Your task to perform on an android device: Open Youtube and go to the subscriptions tab Image 0: 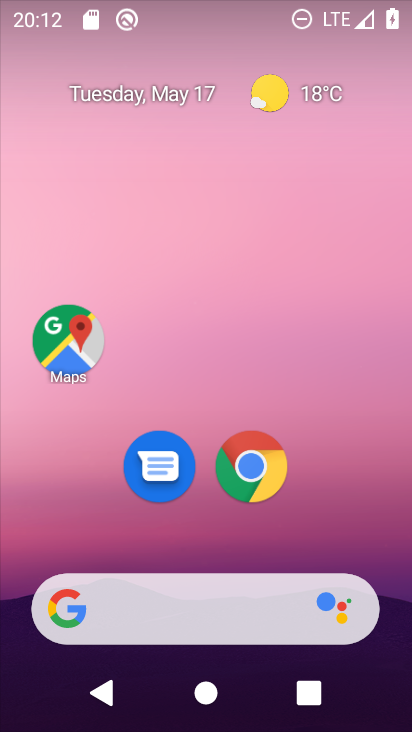
Step 0: press home button
Your task to perform on an android device: Open Youtube and go to the subscriptions tab Image 1: 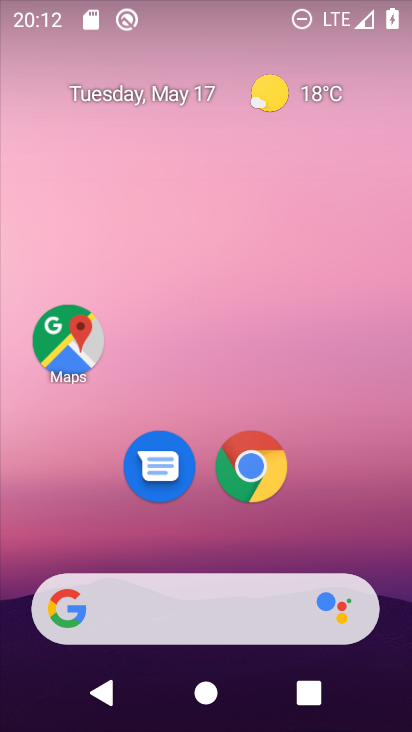
Step 1: drag from (166, 620) to (286, 189)
Your task to perform on an android device: Open Youtube and go to the subscriptions tab Image 2: 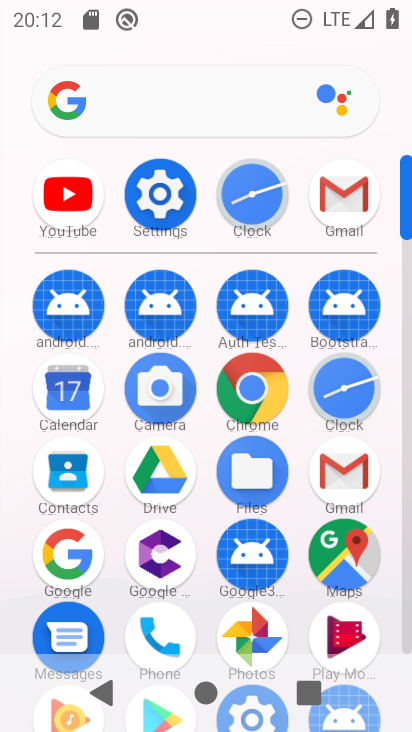
Step 2: drag from (218, 590) to (319, 207)
Your task to perform on an android device: Open Youtube and go to the subscriptions tab Image 3: 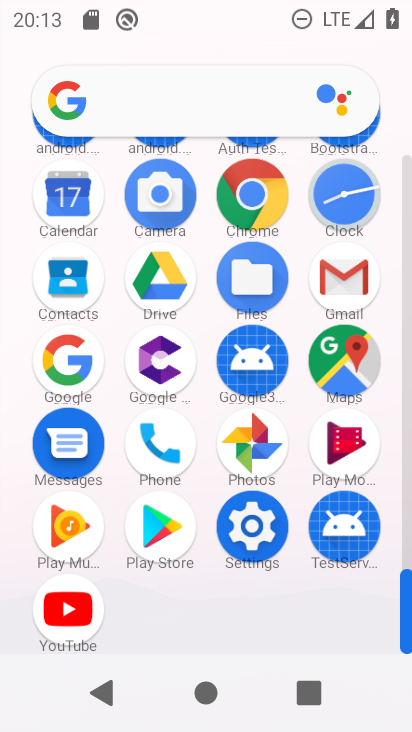
Step 3: click (81, 613)
Your task to perform on an android device: Open Youtube and go to the subscriptions tab Image 4: 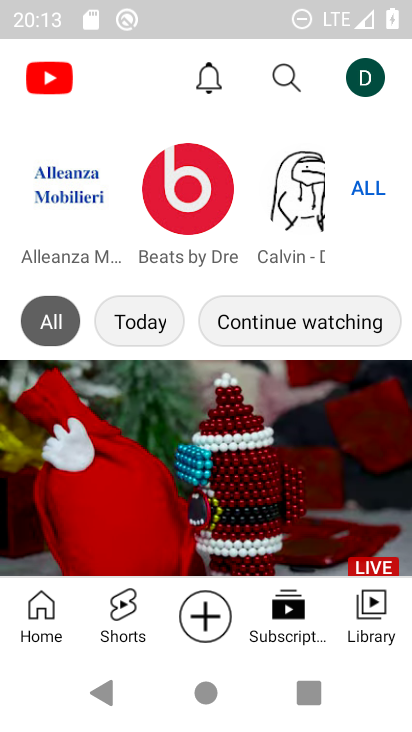
Step 4: click (286, 616)
Your task to perform on an android device: Open Youtube and go to the subscriptions tab Image 5: 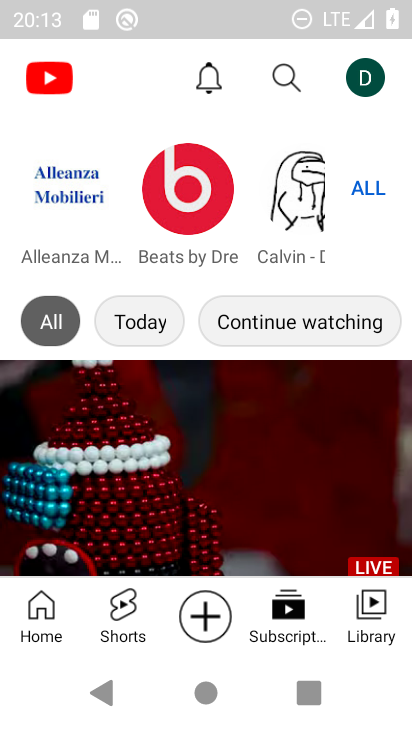
Step 5: click (286, 616)
Your task to perform on an android device: Open Youtube and go to the subscriptions tab Image 6: 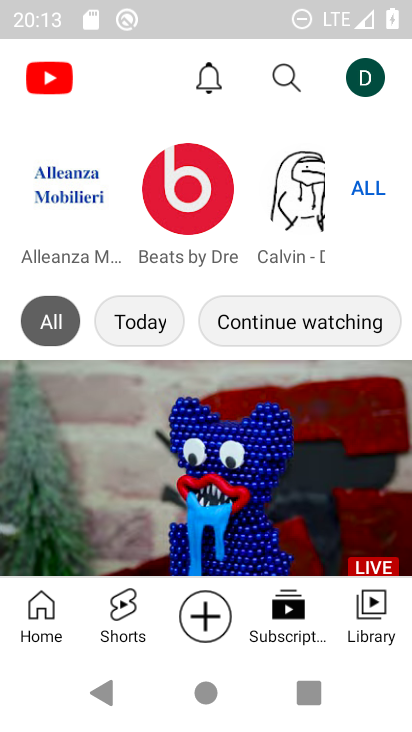
Step 6: task complete